Your task to perform on an android device: Open the calendar app, open the side menu, and click the "Day" option Image 0: 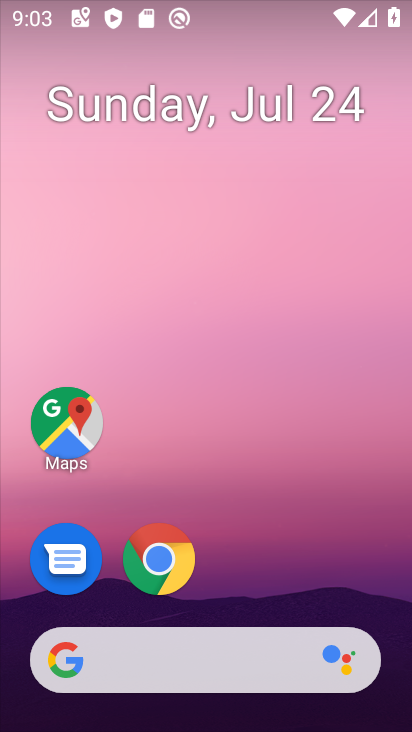
Step 0: drag from (238, 597) to (327, 12)
Your task to perform on an android device: Open the calendar app, open the side menu, and click the "Day" option Image 1: 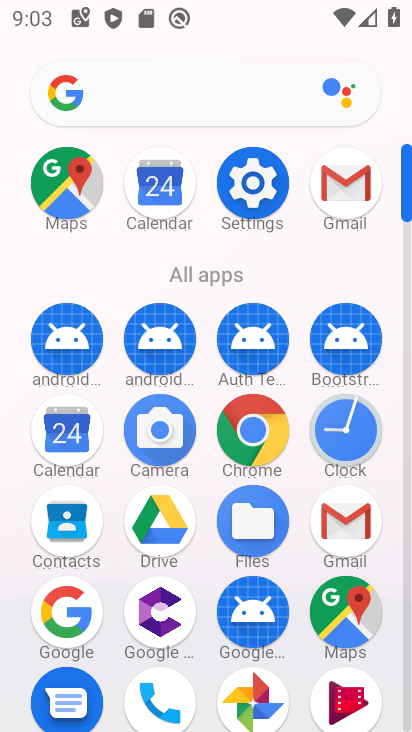
Step 1: click (50, 449)
Your task to perform on an android device: Open the calendar app, open the side menu, and click the "Day" option Image 2: 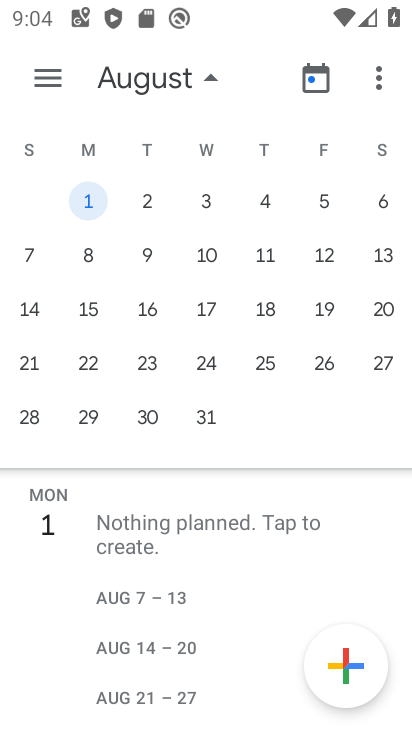
Step 2: click (64, 73)
Your task to perform on an android device: Open the calendar app, open the side menu, and click the "Day" option Image 3: 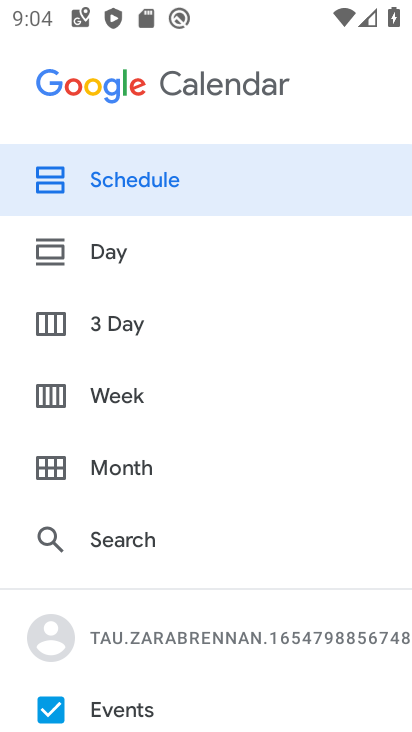
Step 3: click (121, 256)
Your task to perform on an android device: Open the calendar app, open the side menu, and click the "Day" option Image 4: 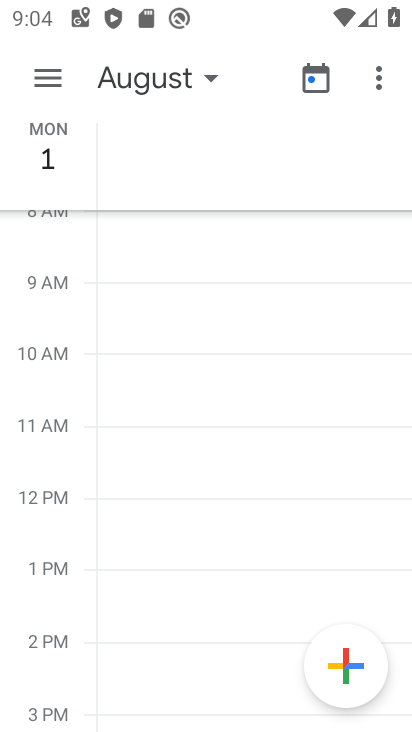
Step 4: task complete